Your task to perform on an android device: open app "Microsoft Authenticator" (install if not already installed) and go to login screen Image 0: 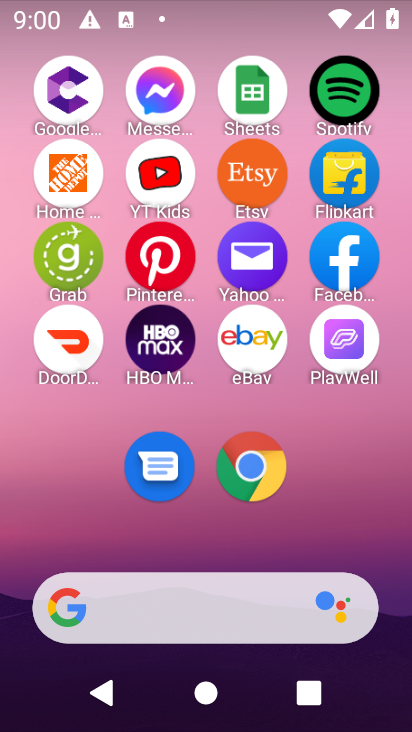
Step 0: drag from (52, 541) to (190, 0)
Your task to perform on an android device: open app "Microsoft Authenticator" (install if not already installed) and go to login screen Image 1: 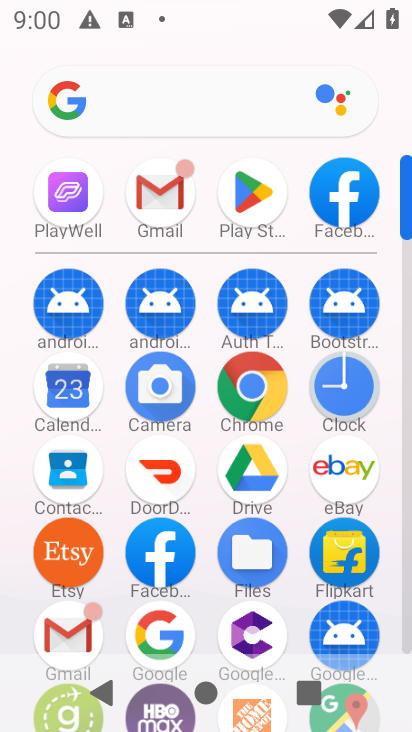
Step 1: click (244, 196)
Your task to perform on an android device: open app "Microsoft Authenticator" (install if not already installed) and go to login screen Image 2: 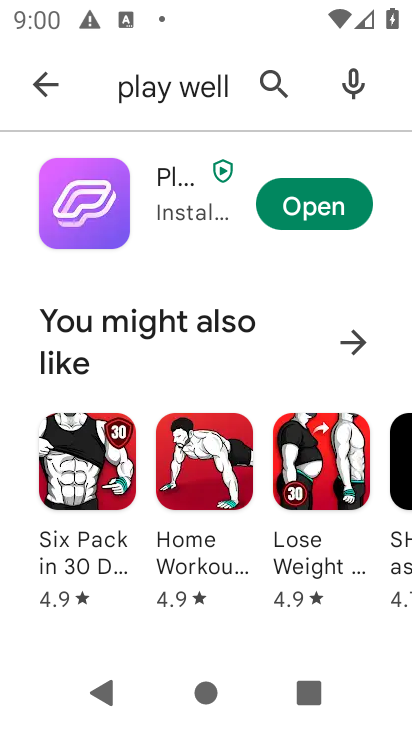
Step 2: click (277, 88)
Your task to perform on an android device: open app "Microsoft Authenticator" (install if not already installed) and go to login screen Image 3: 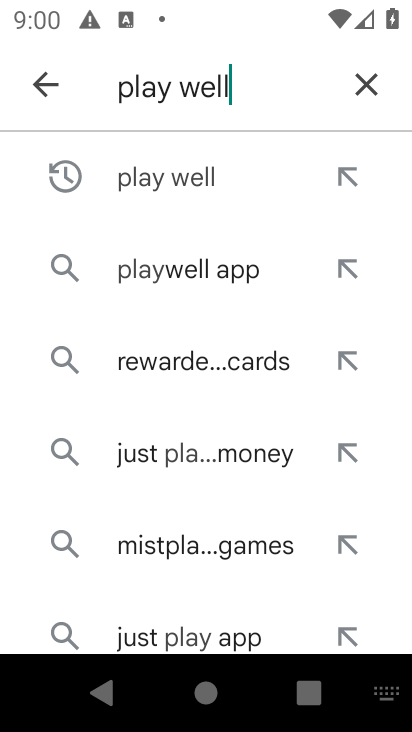
Step 3: click (363, 71)
Your task to perform on an android device: open app "Microsoft Authenticator" (install if not already installed) and go to login screen Image 4: 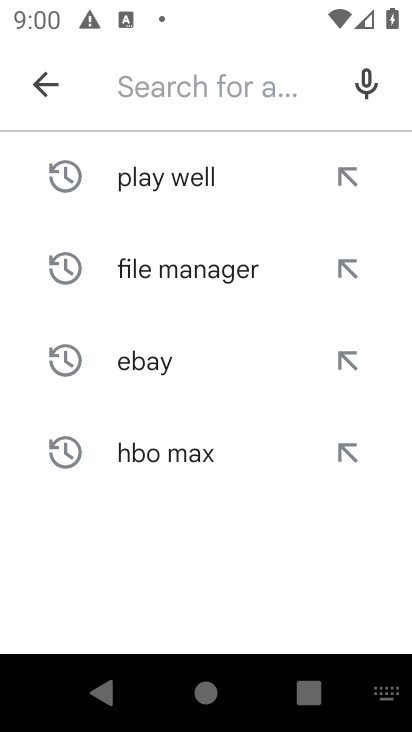
Step 4: click (174, 80)
Your task to perform on an android device: open app "Microsoft Authenticator" (install if not already installed) and go to login screen Image 5: 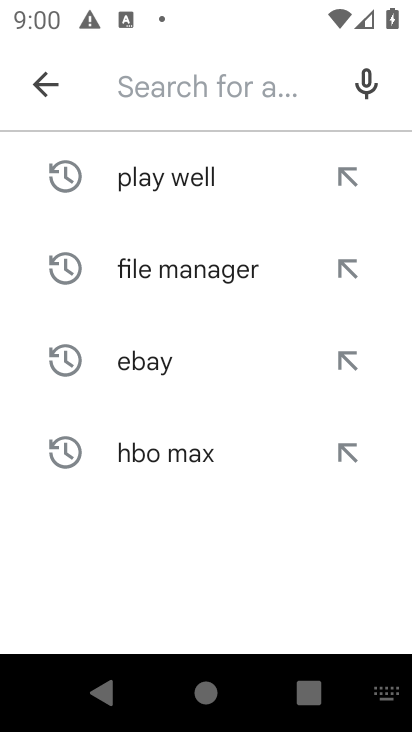
Step 5: type "microsoft"
Your task to perform on an android device: open app "Microsoft Authenticator" (install if not already installed) and go to login screen Image 6: 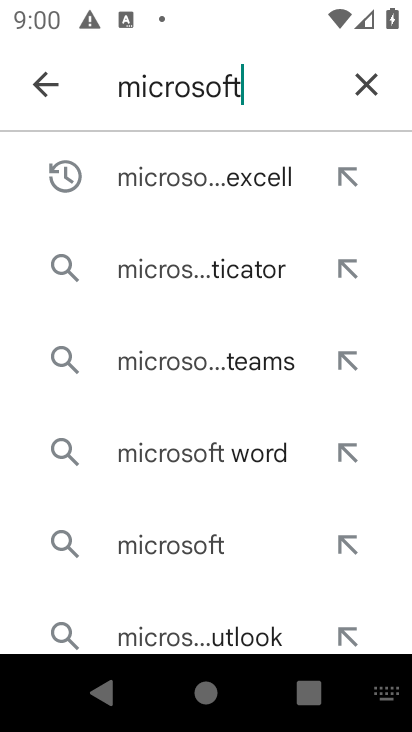
Step 6: type "Authenticator"
Your task to perform on an android device: open app "Microsoft Authenticator" (install if not already installed) and go to login screen Image 7: 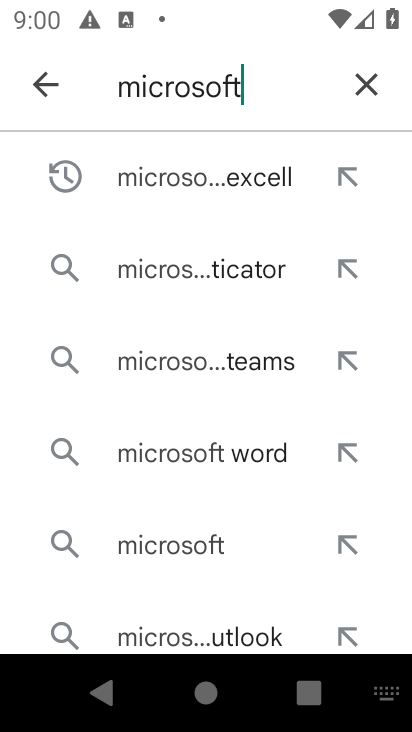
Step 7: click (278, 42)
Your task to perform on an android device: open app "Microsoft Authenticator" (install if not already installed) and go to login screen Image 8: 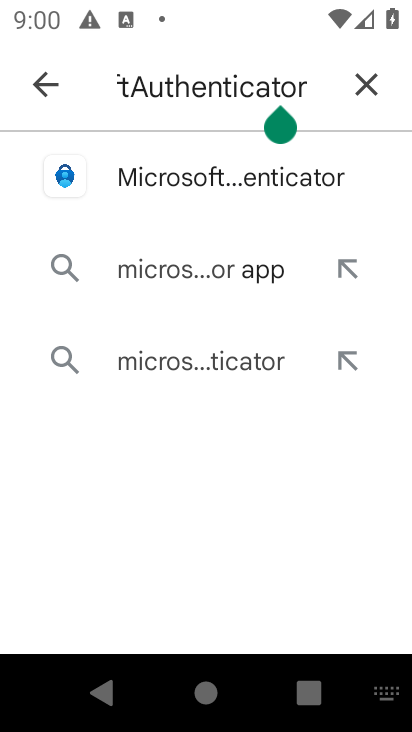
Step 8: click (165, 170)
Your task to perform on an android device: open app "Microsoft Authenticator" (install if not already installed) and go to login screen Image 9: 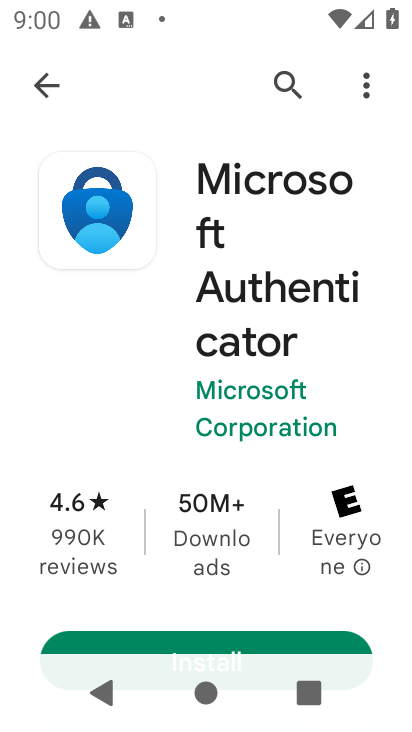
Step 9: drag from (232, 522) to (272, 170)
Your task to perform on an android device: open app "Microsoft Authenticator" (install if not already installed) and go to login screen Image 10: 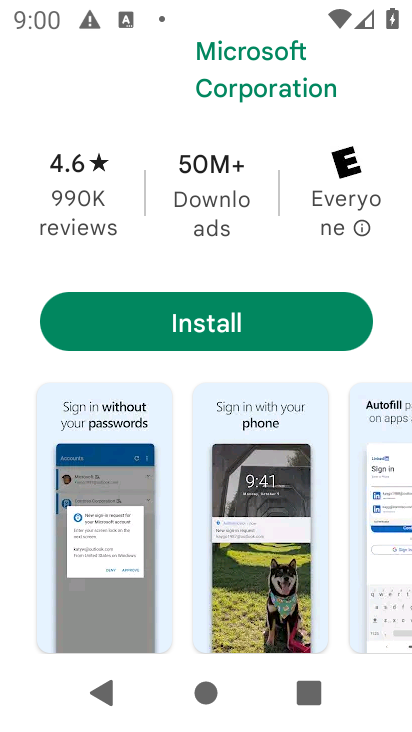
Step 10: click (209, 308)
Your task to perform on an android device: open app "Microsoft Authenticator" (install if not already installed) and go to login screen Image 11: 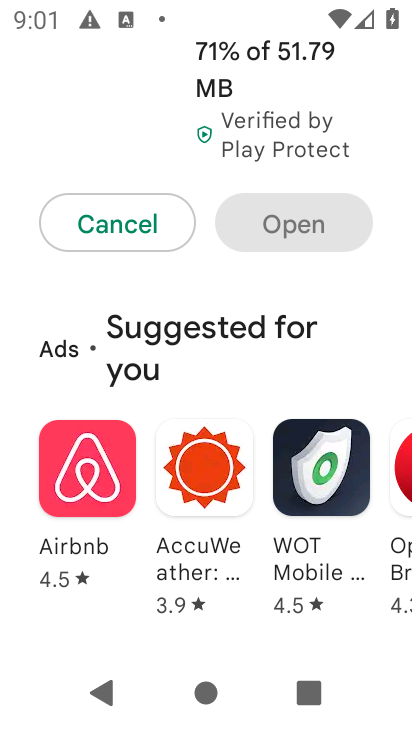
Step 11: drag from (226, 284) to (210, 580)
Your task to perform on an android device: open app "Microsoft Authenticator" (install if not already installed) and go to login screen Image 12: 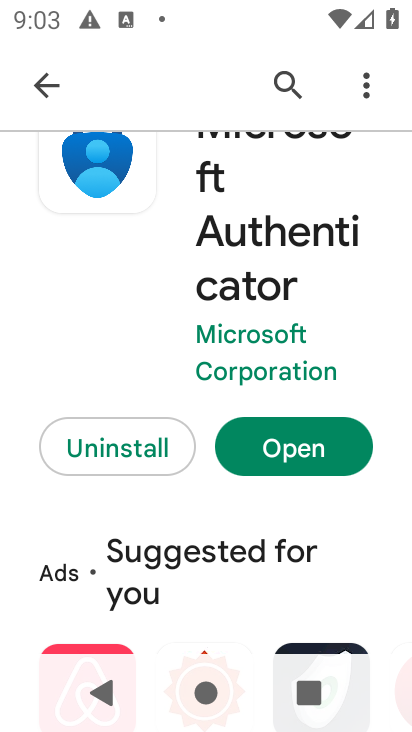
Step 12: click (336, 449)
Your task to perform on an android device: open app "Microsoft Authenticator" (install if not already installed) and go to login screen Image 13: 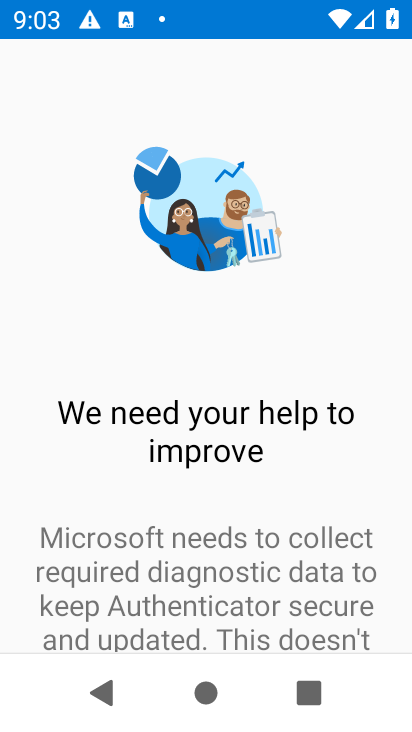
Step 13: task complete